Your task to perform on an android device: stop showing notifications on the lock screen Image 0: 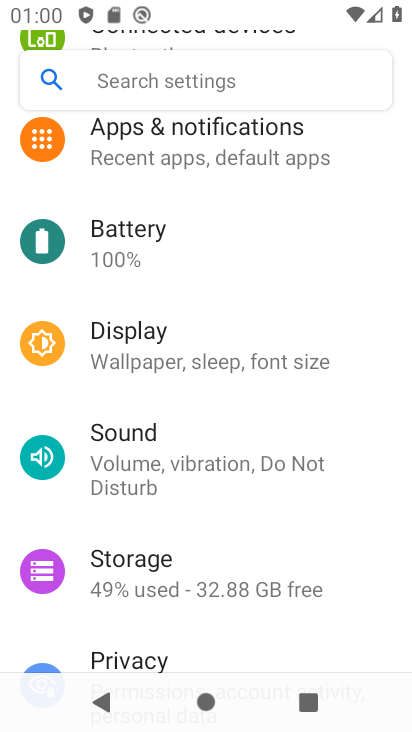
Step 0: press home button
Your task to perform on an android device: stop showing notifications on the lock screen Image 1: 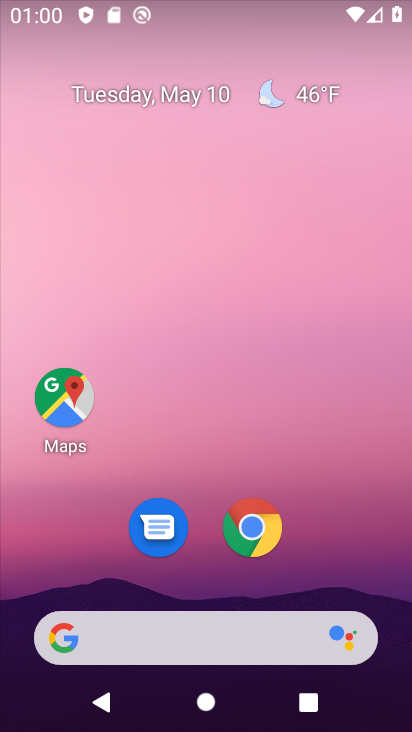
Step 1: drag from (340, 562) to (180, 254)
Your task to perform on an android device: stop showing notifications on the lock screen Image 2: 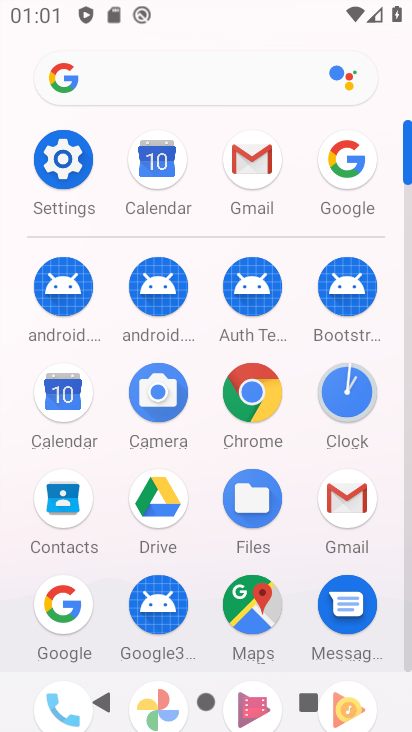
Step 2: click (60, 167)
Your task to perform on an android device: stop showing notifications on the lock screen Image 3: 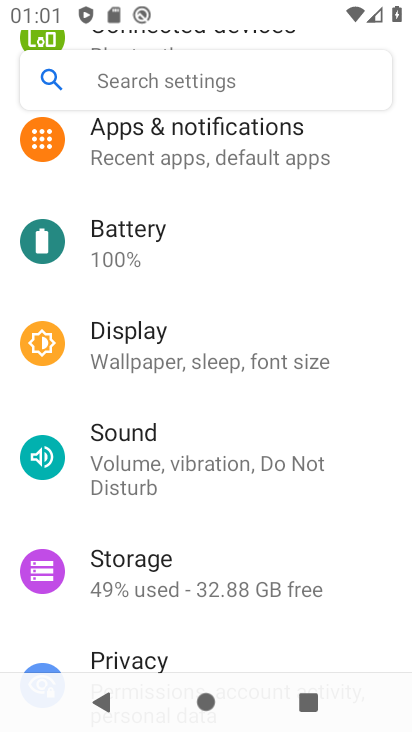
Step 3: click (254, 150)
Your task to perform on an android device: stop showing notifications on the lock screen Image 4: 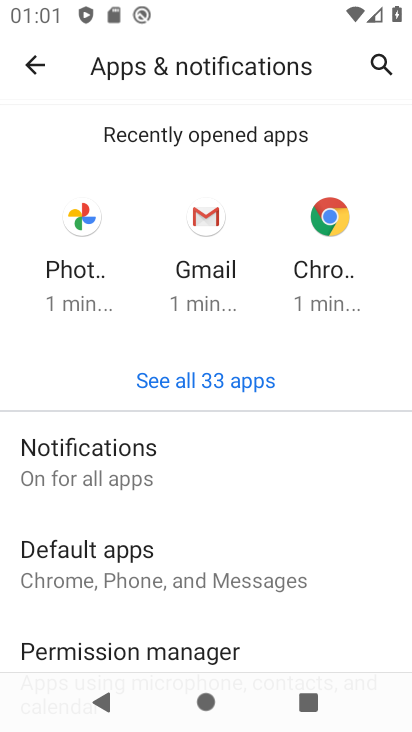
Step 4: click (135, 468)
Your task to perform on an android device: stop showing notifications on the lock screen Image 5: 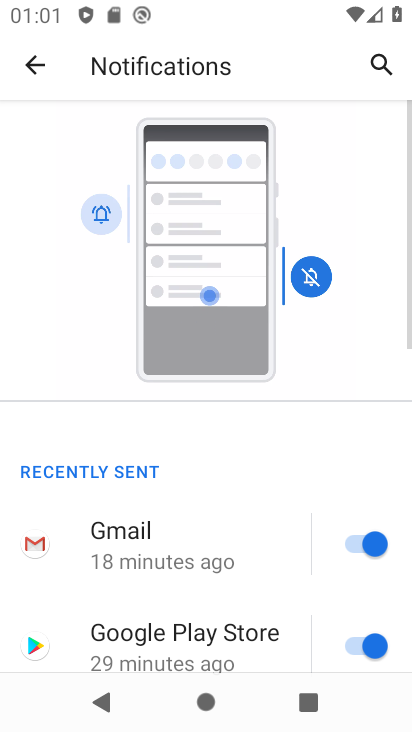
Step 5: drag from (154, 627) to (162, 325)
Your task to perform on an android device: stop showing notifications on the lock screen Image 6: 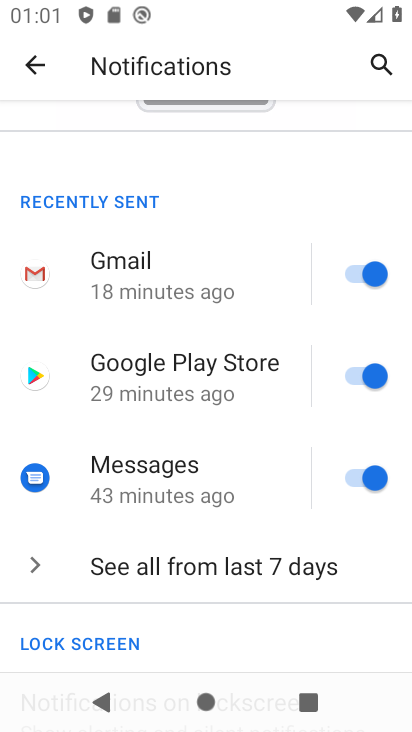
Step 6: drag from (162, 636) to (178, 386)
Your task to perform on an android device: stop showing notifications on the lock screen Image 7: 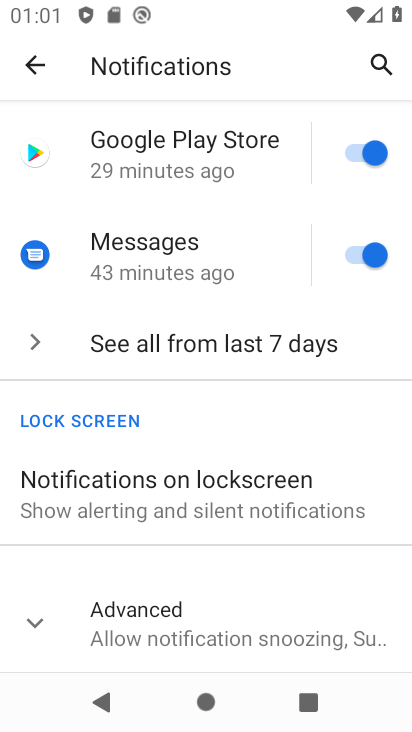
Step 7: click (163, 502)
Your task to perform on an android device: stop showing notifications on the lock screen Image 8: 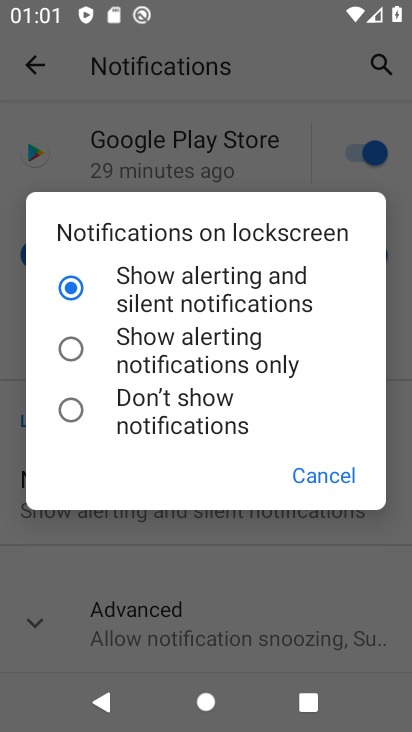
Step 8: click (74, 415)
Your task to perform on an android device: stop showing notifications on the lock screen Image 9: 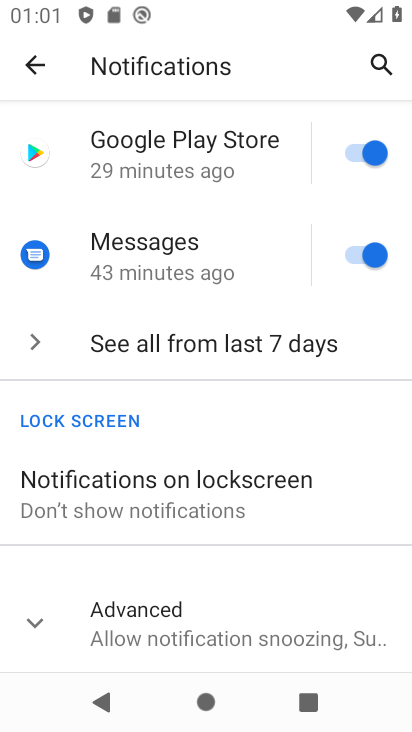
Step 9: task complete